Your task to perform on an android device: Open Amazon Image 0: 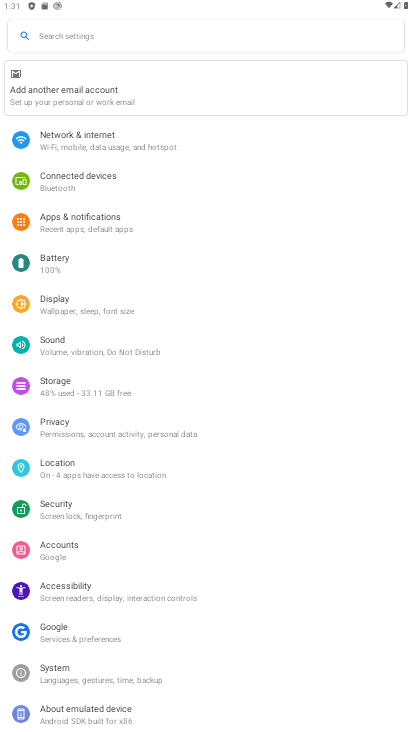
Step 0: press home button
Your task to perform on an android device: Open Amazon Image 1: 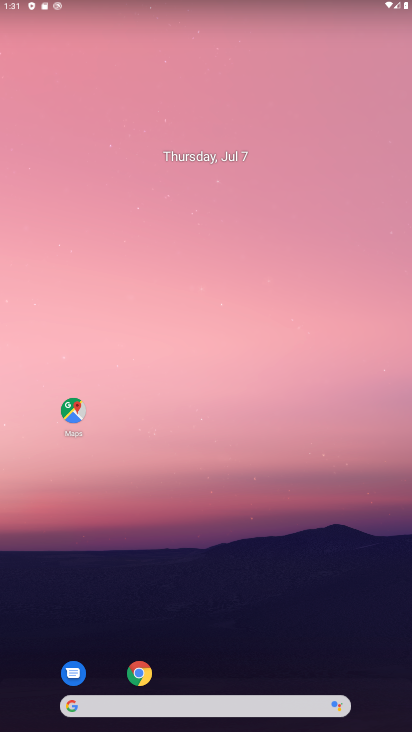
Step 1: click (138, 671)
Your task to perform on an android device: Open Amazon Image 2: 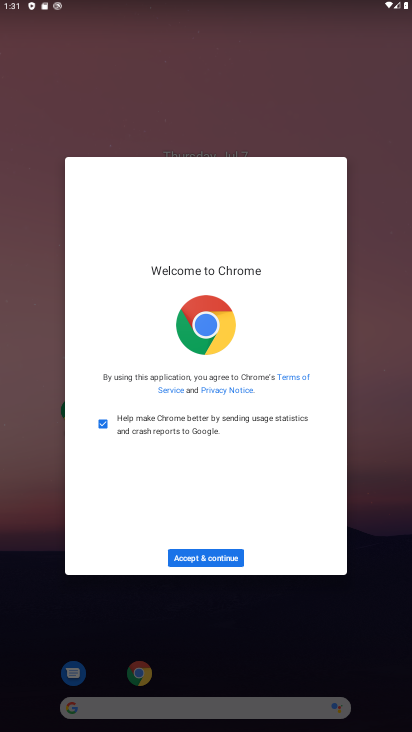
Step 2: click (206, 560)
Your task to perform on an android device: Open Amazon Image 3: 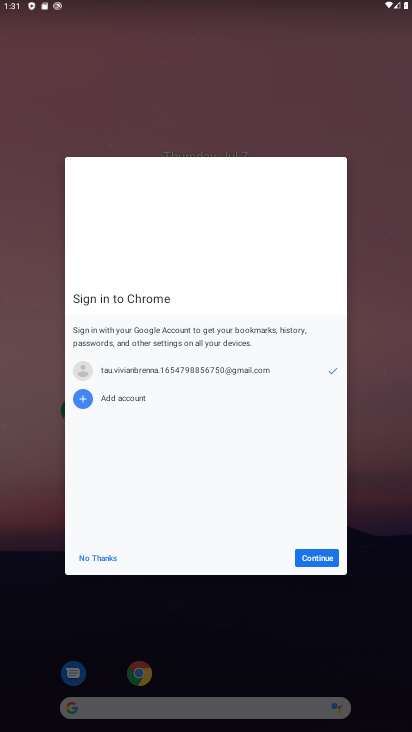
Step 3: click (314, 555)
Your task to perform on an android device: Open Amazon Image 4: 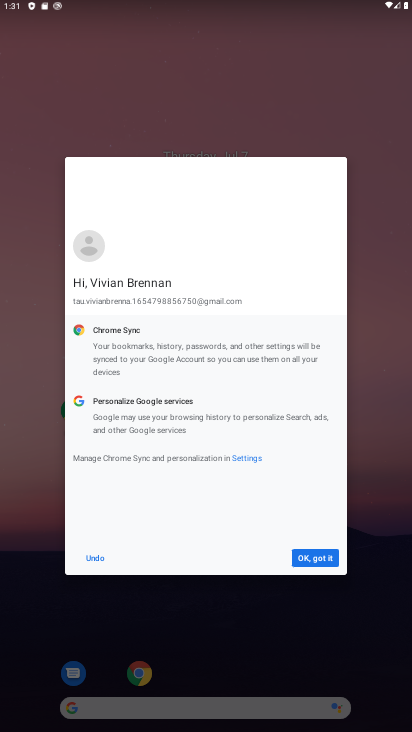
Step 4: click (314, 555)
Your task to perform on an android device: Open Amazon Image 5: 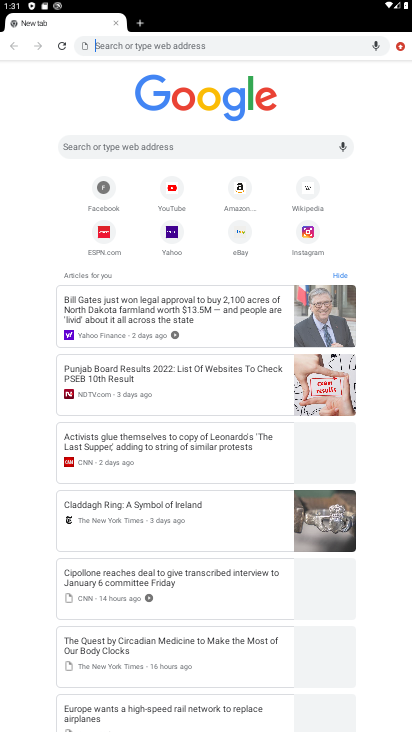
Step 5: click (241, 188)
Your task to perform on an android device: Open Amazon Image 6: 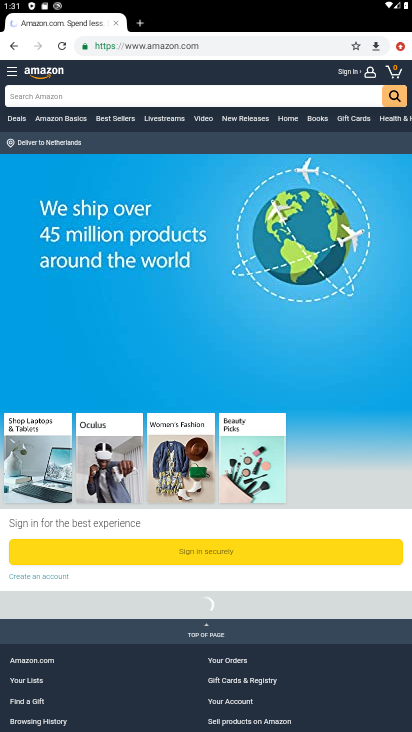
Step 6: task complete